Your task to perform on an android device: all mails in gmail Image 0: 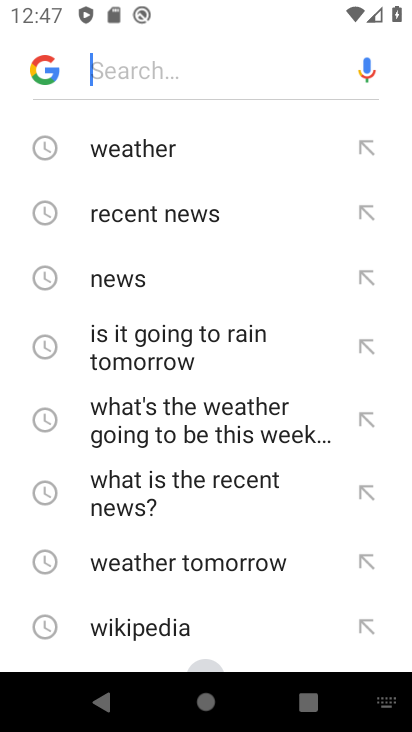
Step 0: task complete